Your task to perform on an android device: Go to Maps Image 0: 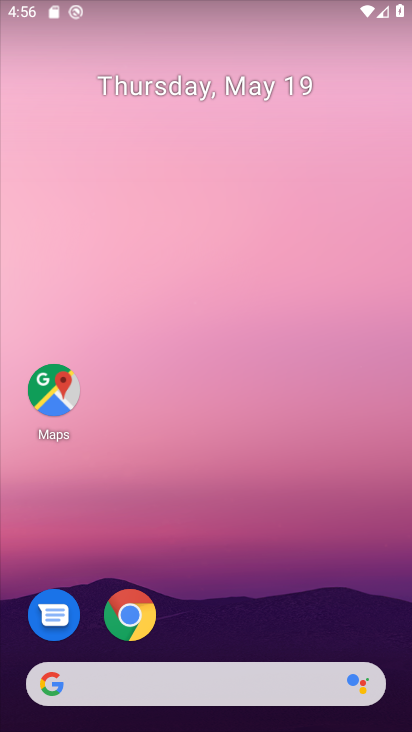
Step 0: drag from (294, 667) to (240, 23)
Your task to perform on an android device: Go to Maps Image 1: 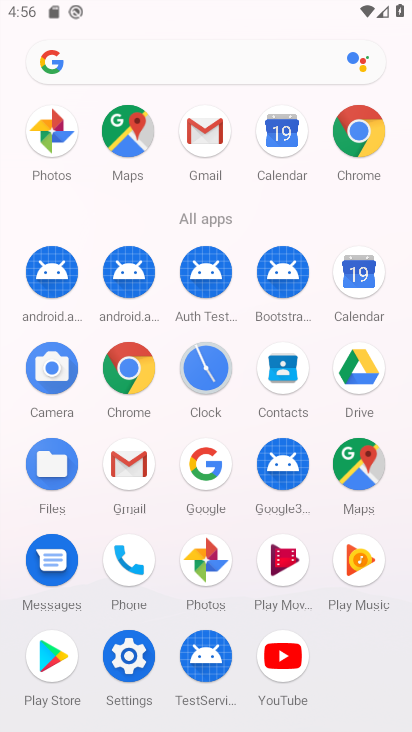
Step 1: click (381, 461)
Your task to perform on an android device: Go to Maps Image 2: 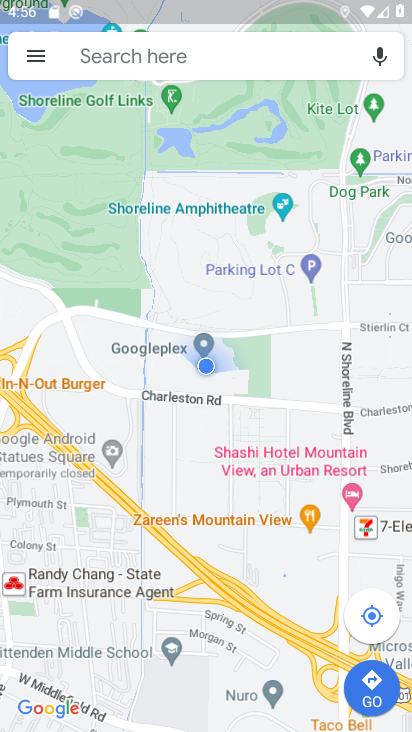
Step 2: task complete